Your task to perform on an android device: turn on sleep mode Image 0: 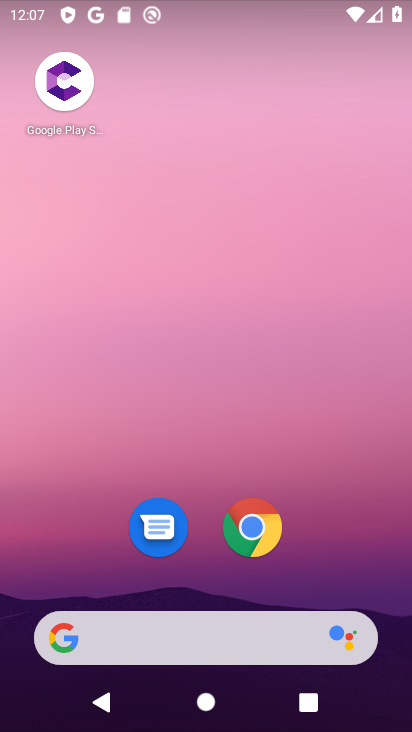
Step 0: drag from (223, 718) to (127, 112)
Your task to perform on an android device: turn on sleep mode Image 1: 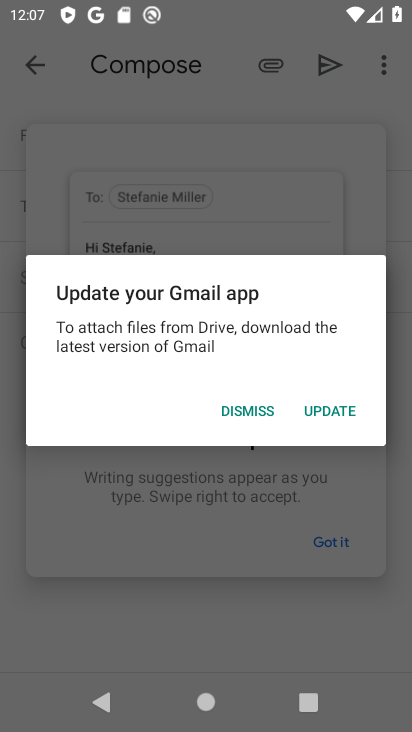
Step 1: click (227, 407)
Your task to perform on an android device: turn on sleep mode Image 2: 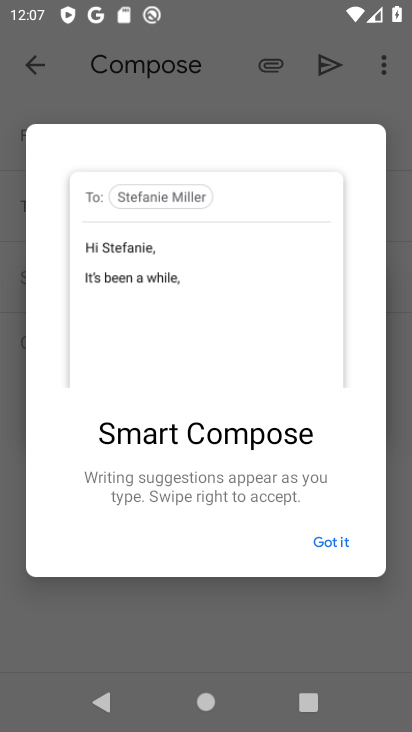
Step 2: click (322, 547)
Your task to perform on an android device: turn on sleep mode Image 3: 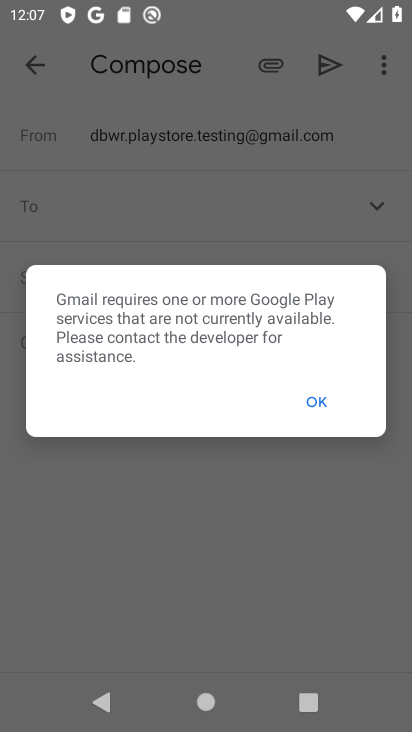
Step 3: click (301, 392)
Your task to perform on an android device: turn on sleep mode Image 4: 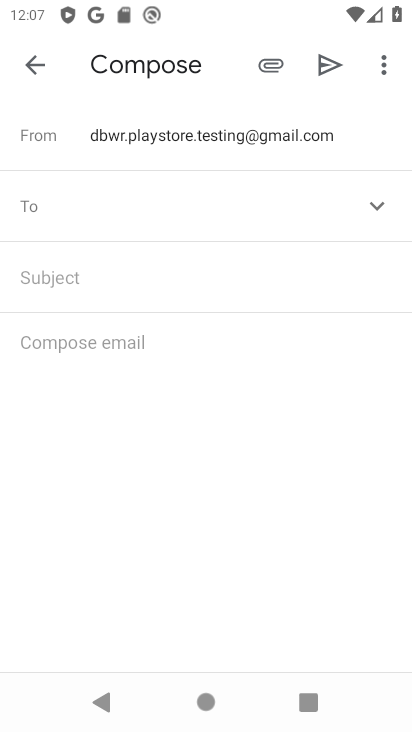
Step 4: click (32, 49)
Your task to perform on an android device: turn on sleep mode Image 5: 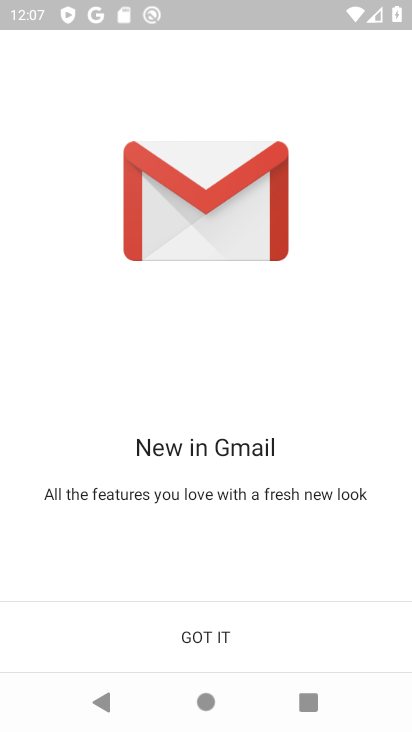
Step 5: press home button
Your task to perform on an android device: turn on sleep mode Image 6: 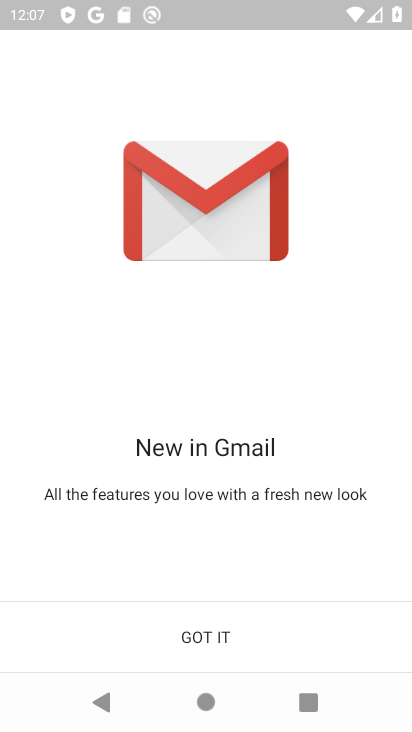
Step 6: press home button
Your task to perform on an android device: turn on sleep mode Image 7: 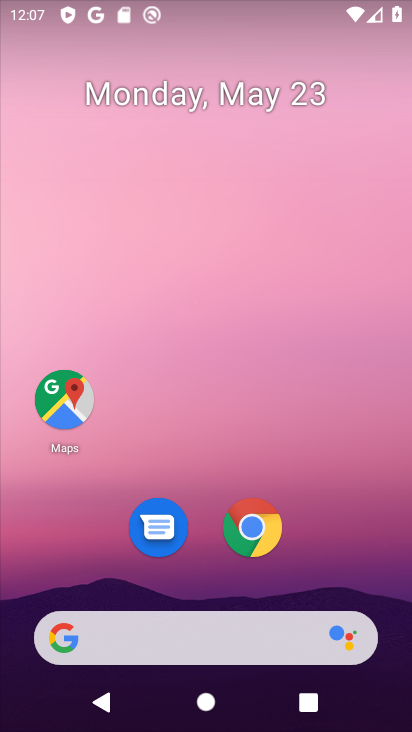
Step 7: drag from (276, 600) to (338, 0)
Your task to perform on an android device: turn on sleep mode Image 8: 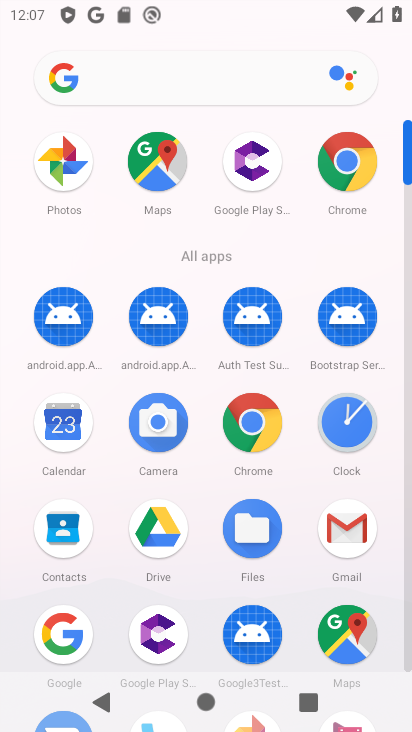
Step 8: drag from (254, 561) to (347, 26)
Your task to perform on an android device: turn on sleep mode Image 9: 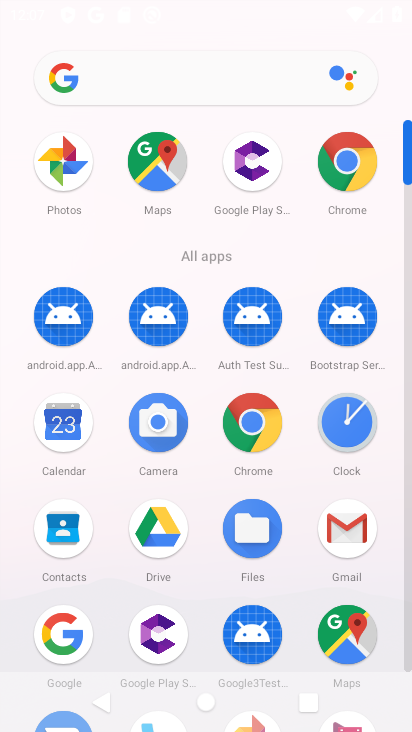
Step 9: drag from (347, 492) to (288, 2)
Your task to perform on an android device: turn on sleep mode Image 10: 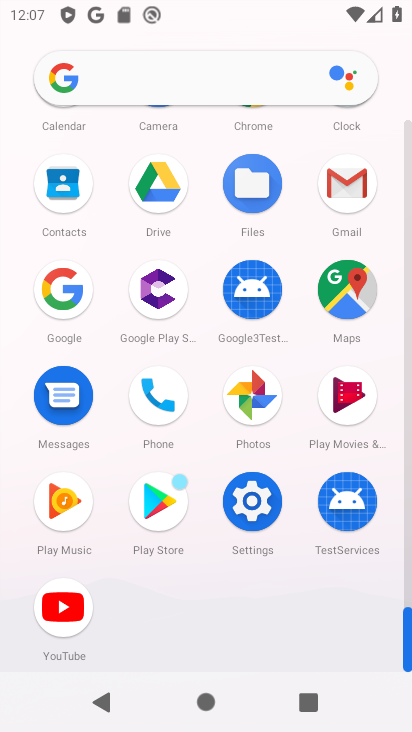
Step 10: click (255, 501)
Your task to perform on an android device: turn on sleep mode Image 11: 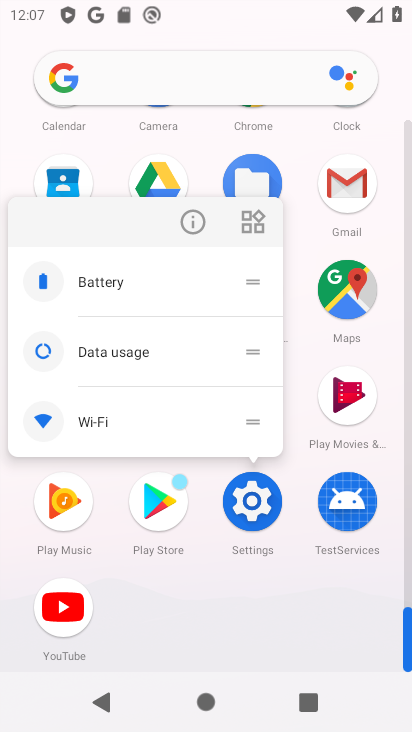
Step 11: click (257, 503)
Your task to perform on an android device: turn on sleep mode Image 12: 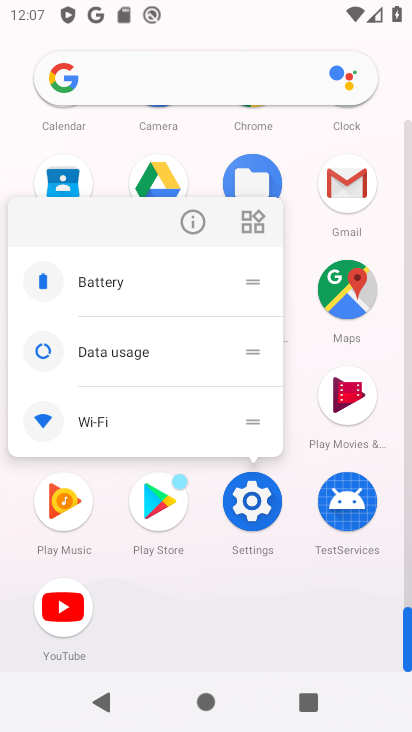
Step 12: click (272, 482)
Your task to perform on an android device: turn on sleep mode Image 13: 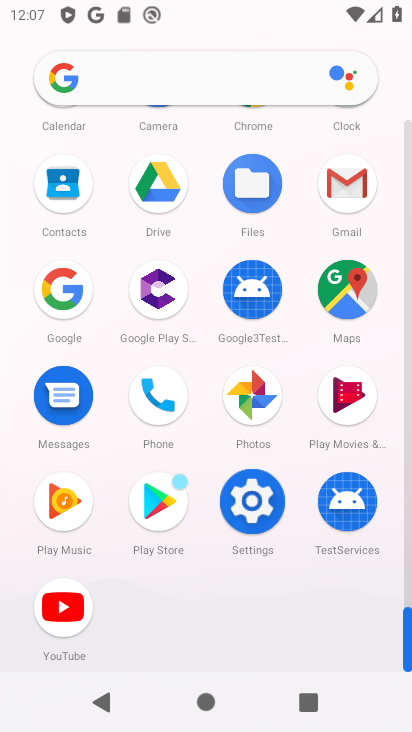
Step 13: click (277, 477)
Your task to perform on an android device: turn on sleep mode Image 14: 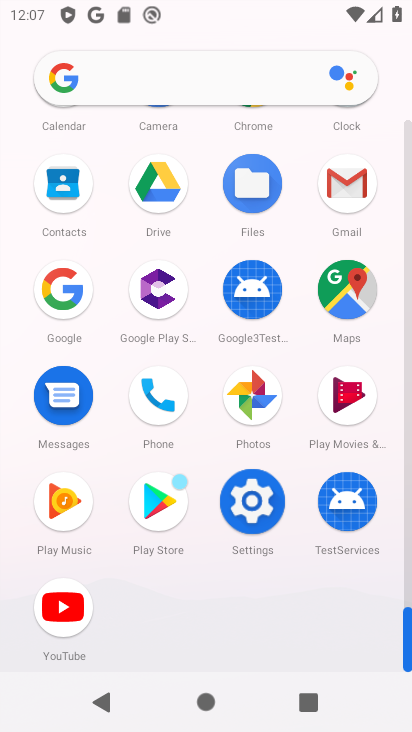
Step 14: click (277, 473)
Your task to perform on an android device: turn on sleep mode Image 15: 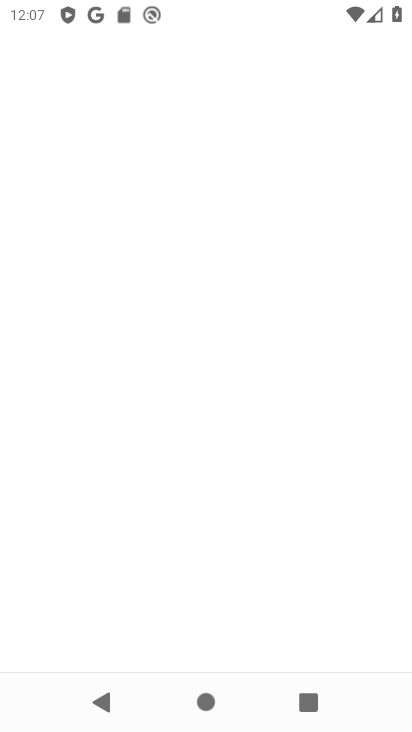
Step 15: click (263, 497)
Your task to perform on an android device: turn on sleep mode Image 16: 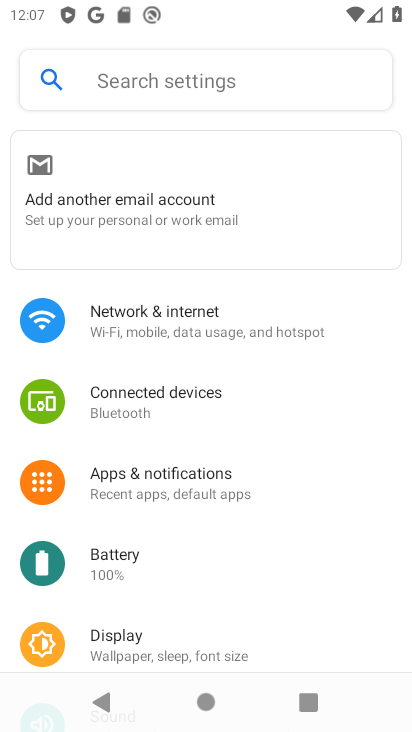
Step 16: drag from (143, 602) to (128, 128)
Your task to perform on an android device: turn on sleep mode Image 17: 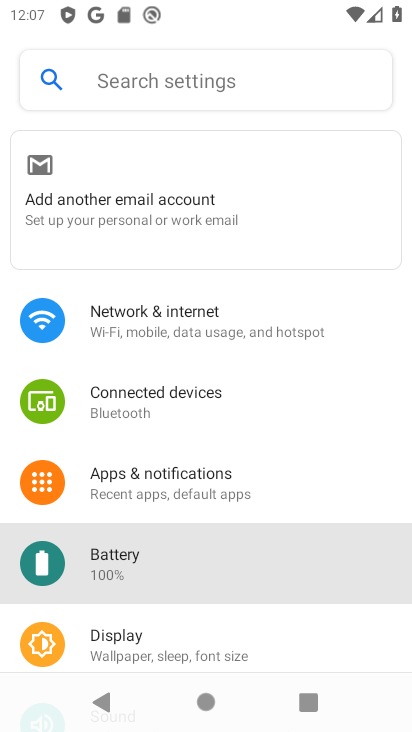
Step 17: drag from (173, 458) to (118, 28)
Your task to perform on an android device: turn on sleep mode Image 18: 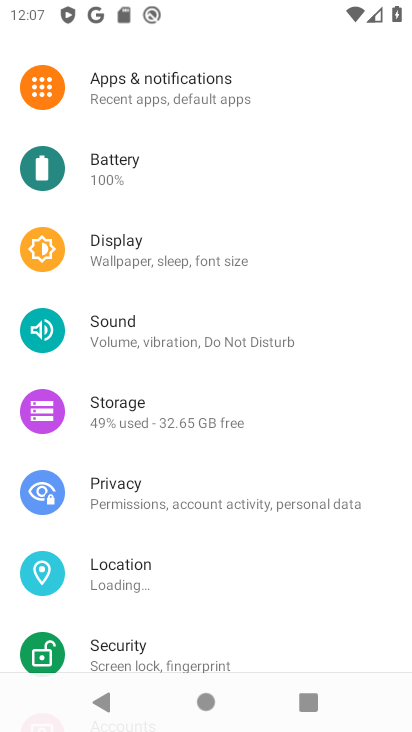
Step 18: drag from (169, 537) to (134, 112)
Your task to perform on an android device: turn on sleep mode Image 19: 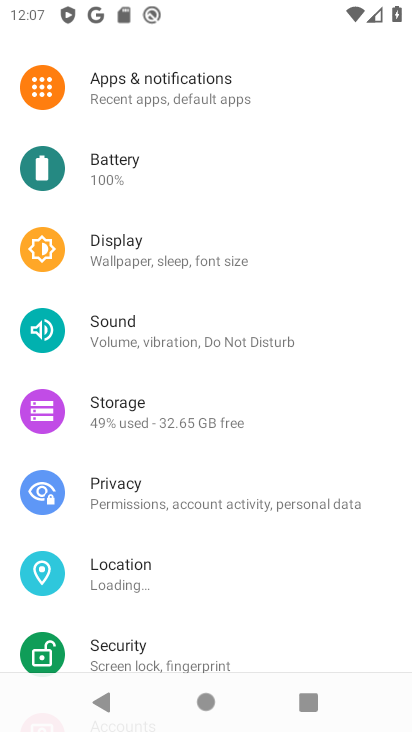
Step 19: click (113, 252)
Your task to perform on an android device: turn on sleep mode Image 20: 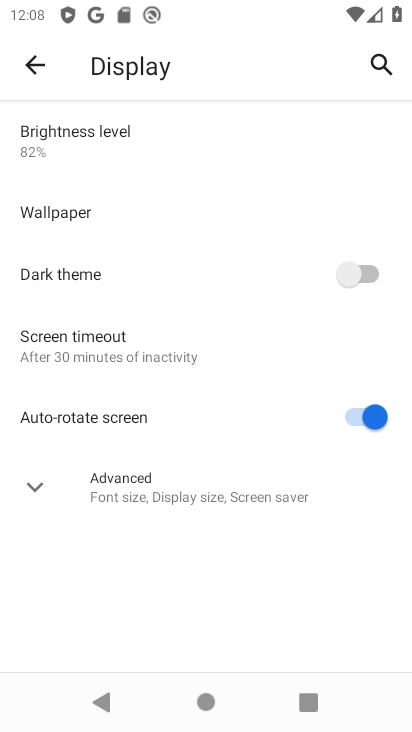
Step 20: task complete